Your task to perform on an android device: Add usb-c to usb-a to the cart on walmart.com Image 0: 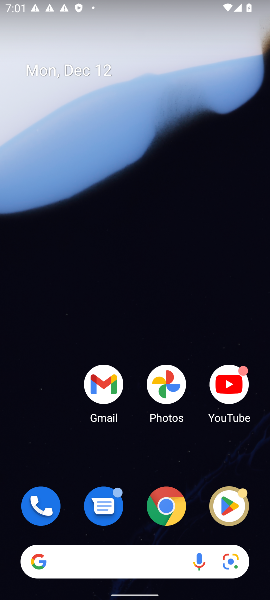
Step 0: press home button
Your task to perform on an android device: Add usb-c to usb-a to the cart on walmart.com Image 1: 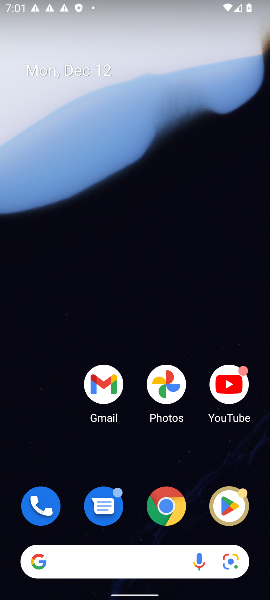
Step 1: click (150, 555)
Your task to perform on an android device: Add usb-c to usb-a to the cart on walmart.com Image 2: 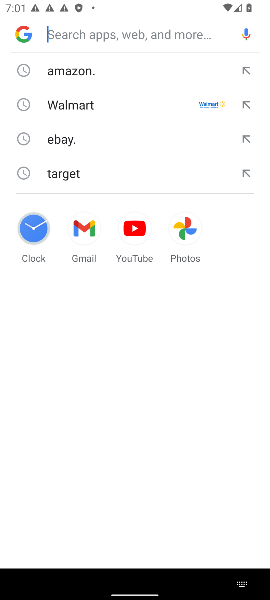
Step 2: click (110, 109)
Your task to perform on an android device: Add usb-c to usb-a to the cart on walmart.com Image 3: 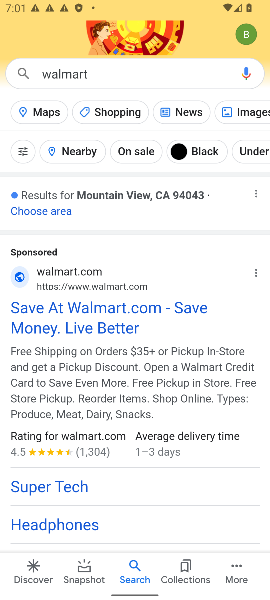
Step 3: click (78, 326)
Your task to perform on an android device: Add usb-c to usb-a to the cart on walmart.com Image 4: 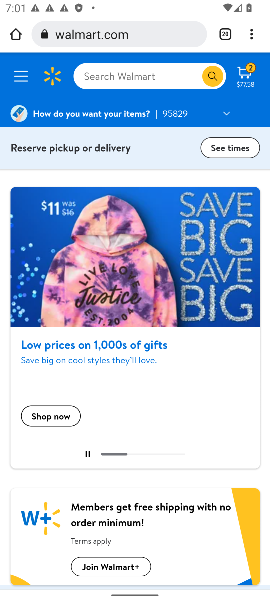
Step 4: click (95, 82)
Your task to perform on an android device: Add usb-c to usb-a to the cart on walmart.com Image 5: 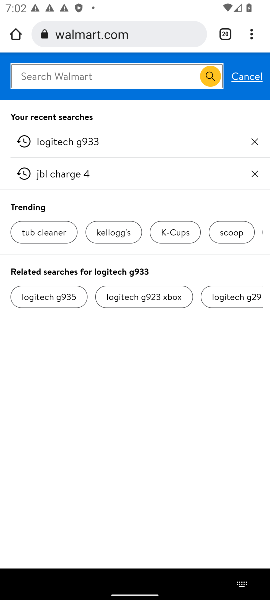
Step 5: type "usb-c to usb-a"
Your task to perform on an android device: Add usb-c to usb-a to the cart on walmart.com Image 6: 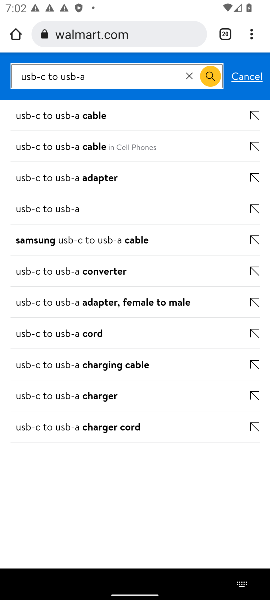
Step 6: click (43, 115)
Your task to perform on an android device: Add usb-c to usb-a to the cart on walmart.com Image 7: 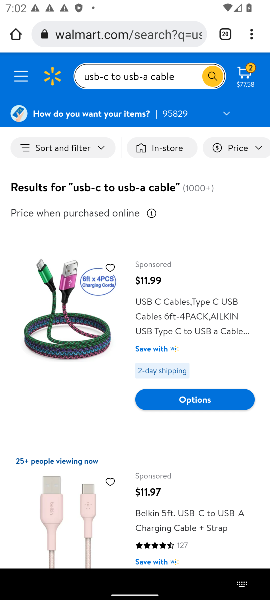
Step 7: click (158, 296)
Your task to perform on an android device: Add usb-c to usb-a to the cart on walmart.com Image 8: 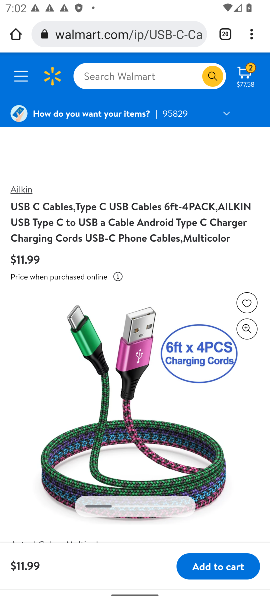
Step 8: click (210, 568)
Your task to perform on an android device: Add usb-c to usb-a to the cart on walmart.com Image 9: 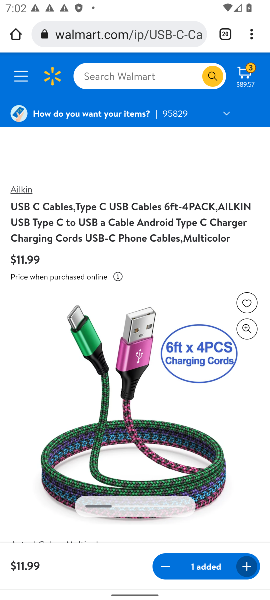
Step 9: task complete